Your task to perform on an android device: Clear the cart on target. Add bose soundlink to the cart on target, then select checkout. Image 0: 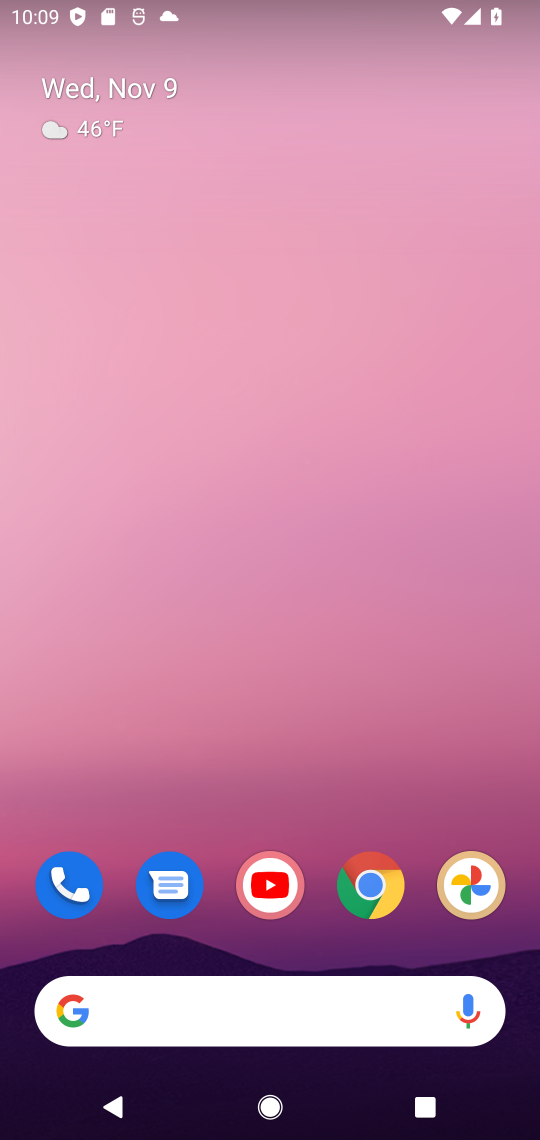
Step 0: click (383, 904)
Your task to perform on an android device: Clear the cart on target. Add bose soundlink to the cart on target, then select checkout. Image 1: 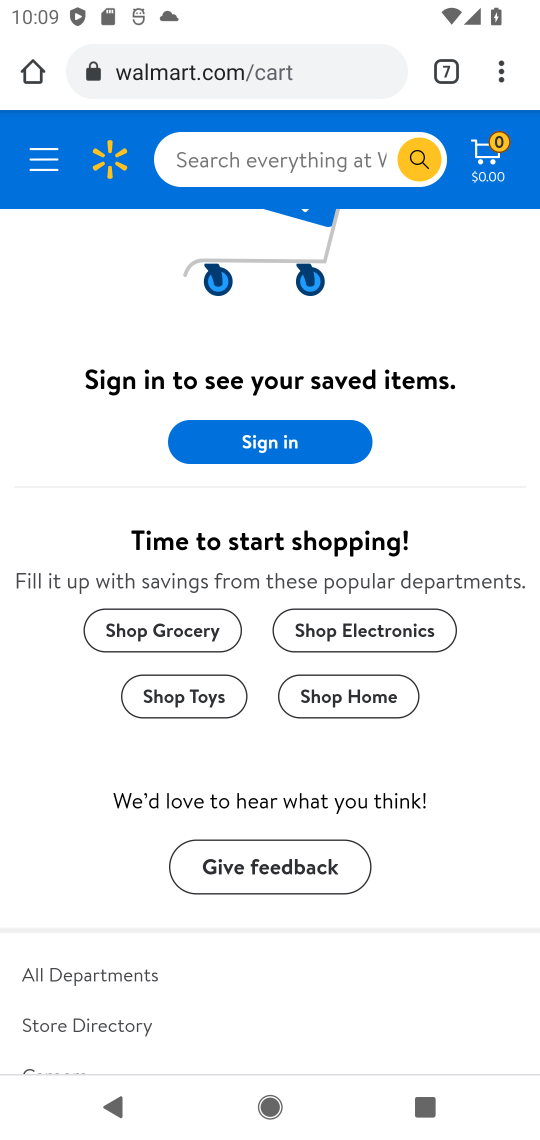
Step 1: click (452, 70)
Your task to perform on an android device: Clear the cart on target. Add bose soundlink to the cart on target, then select checkout. Image 2: 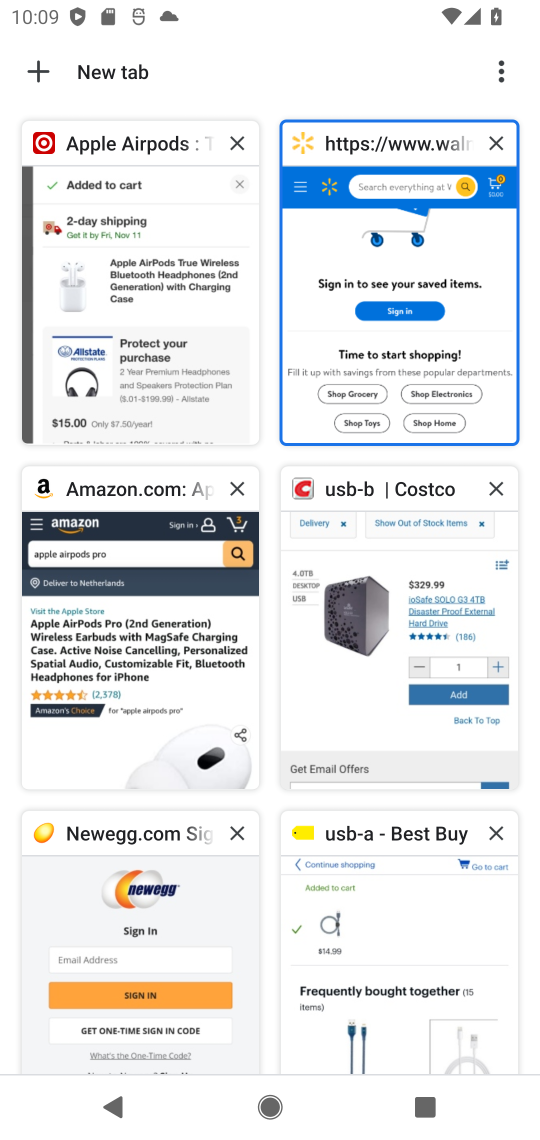
Step 2: click (138, 331)
Your task to perform on an android device: Clear the cart on target. Add bose soundlink to the cart on target, then select checkout. Image 3: 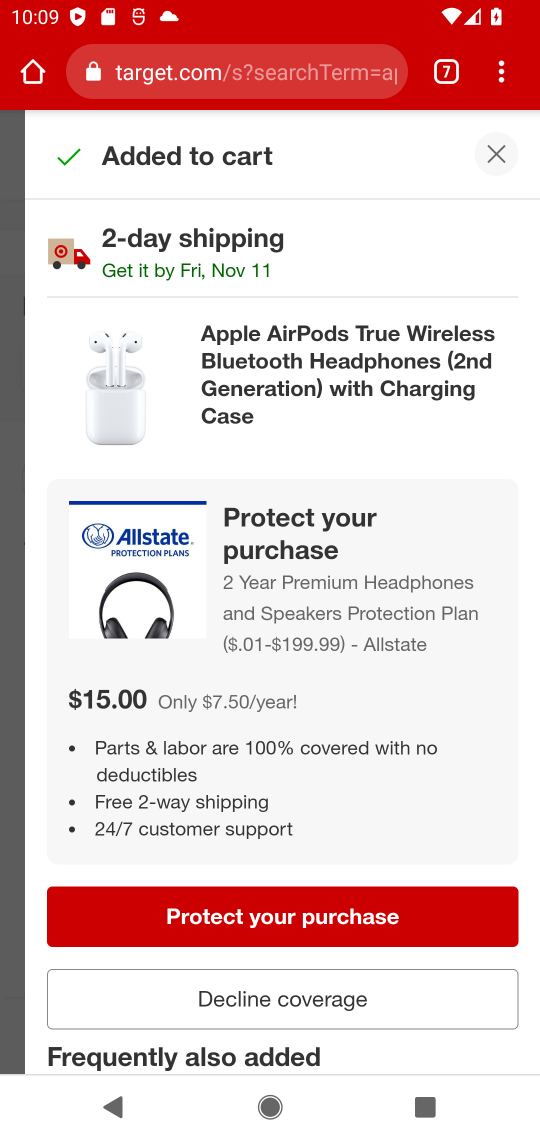
Step 3: click (491, 160)
Your task to perform on an android device: Clear the cart on target. Add bose soundlink to the cart on target, then select checkout. Image 4: 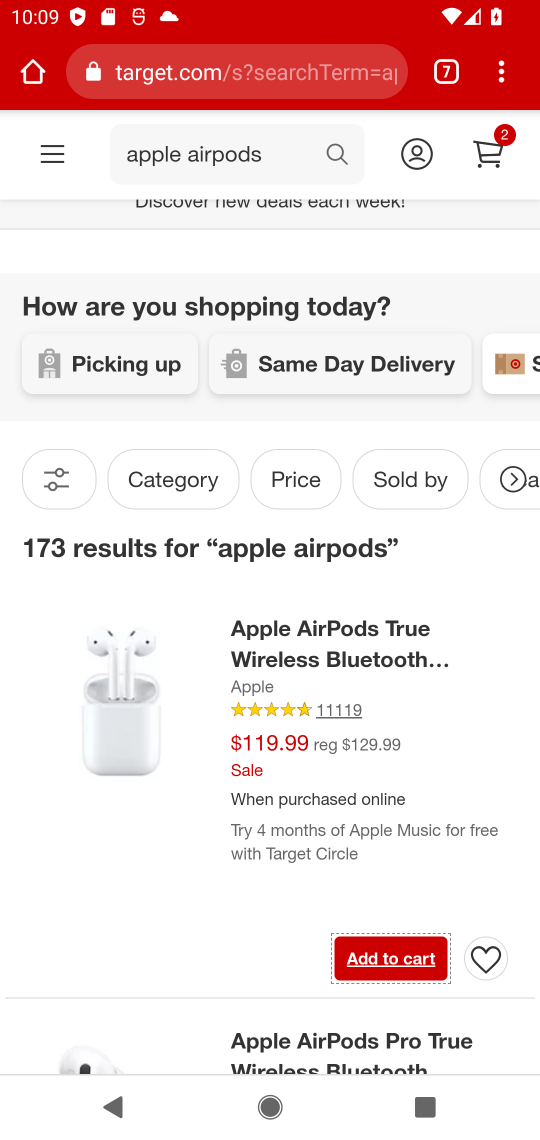
Step 4: click (242, 148)
Your task to perform on an android device: Clear the cart on target. Add bose soundlink to the cart on target, then select checkout. Image 5: 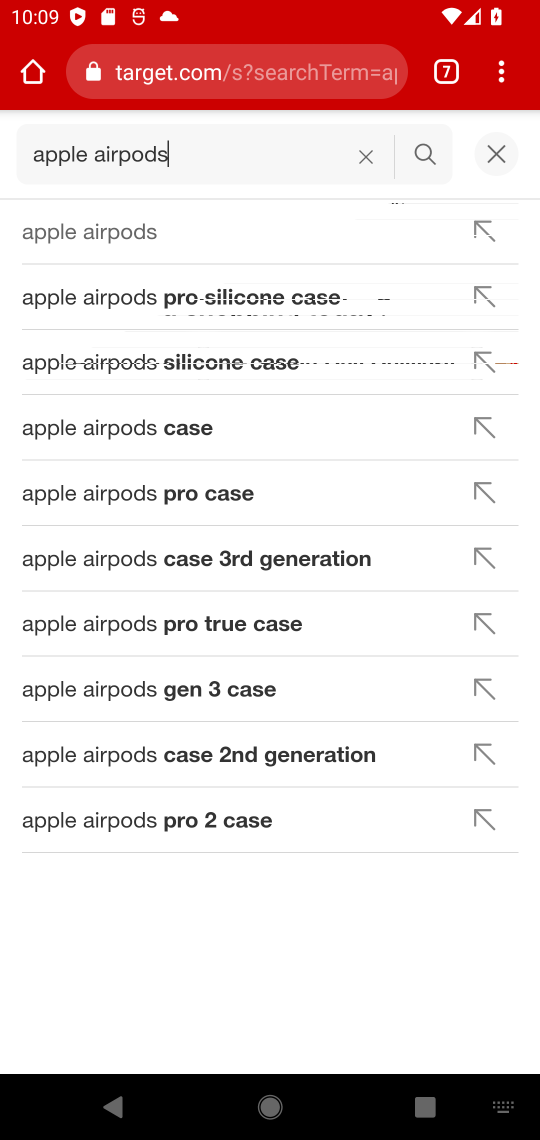
Step 5: click (365, 156)
Your task to perform on an android device: Clear the cart on target. Add bose soundlink to the cart on target, then select checkout. Image 6: 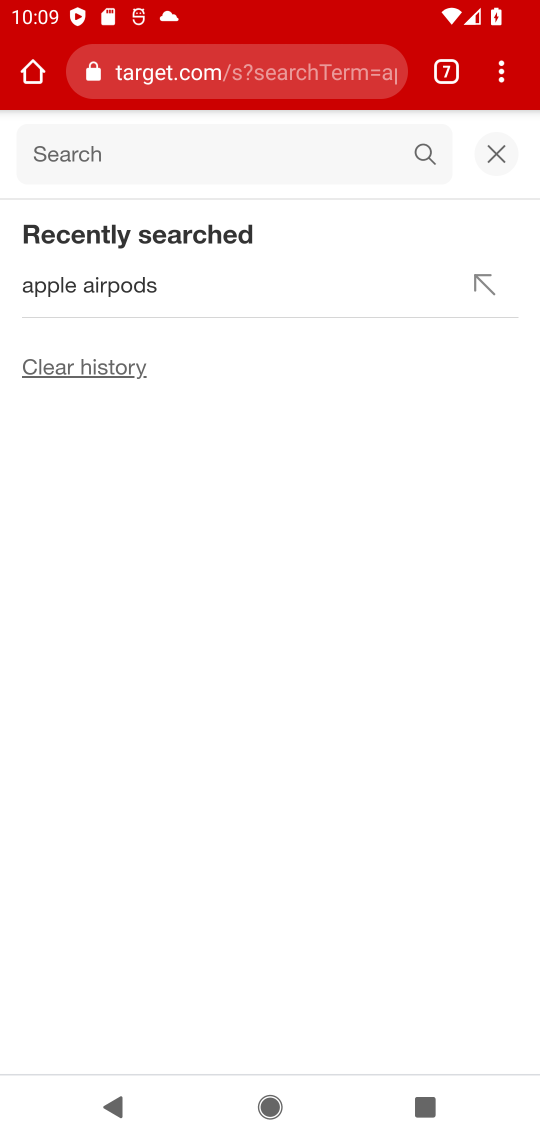
Step 6: click (274, 161)
Your task to perform on an android device: Clear the cart on target. Add bose soundlink to the cart on target, then select checkout. Image 7: 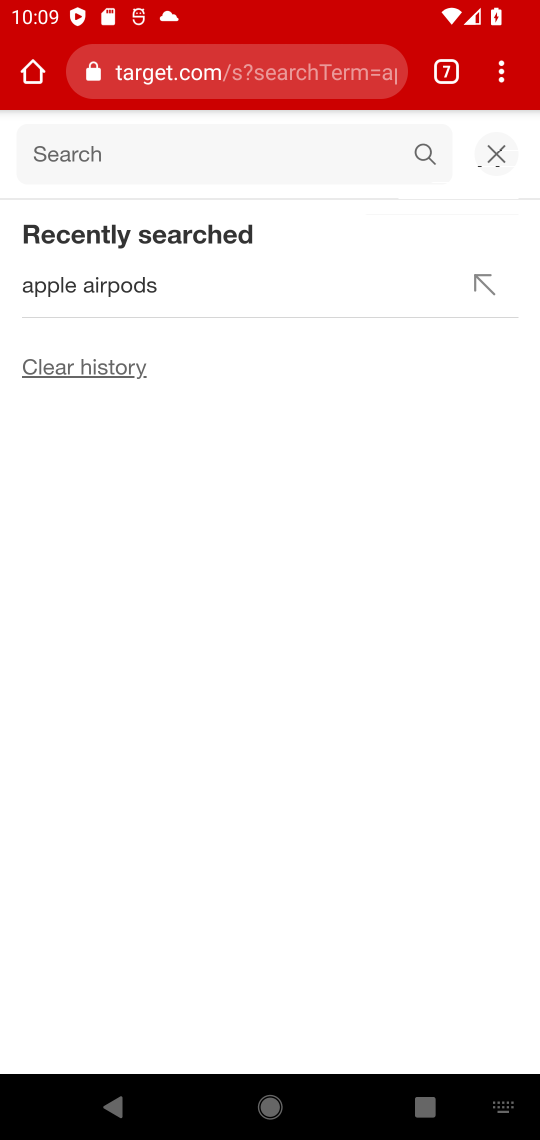
Step 7: type "bose soundlink"
Your task to perform on an android device: Clear the cart on target. Add bose soundlink to the cart on target, then select checkout. Image 8: 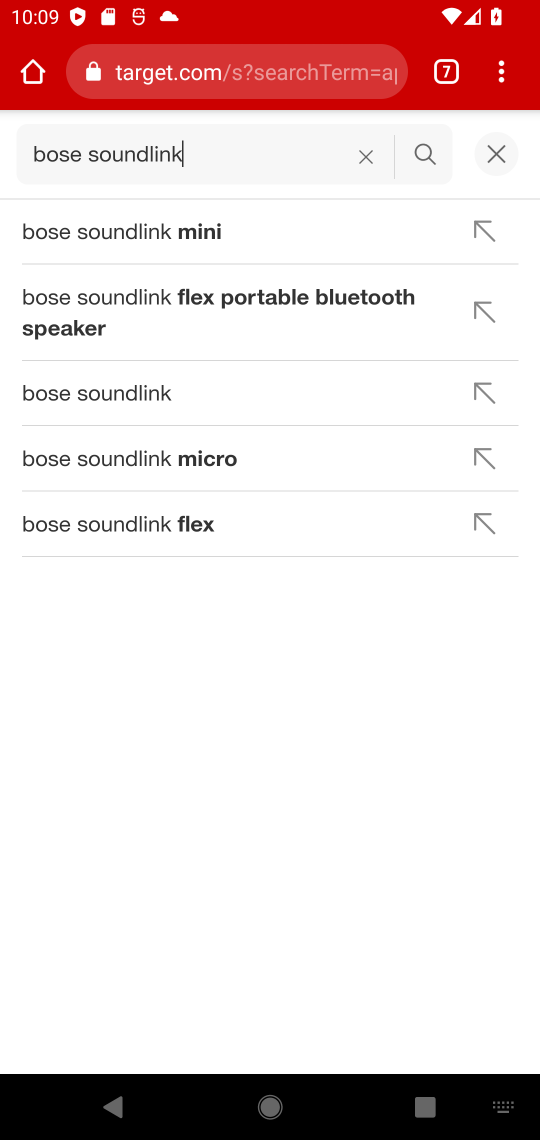
Step 8: click (193, 223)
Your task to perform on an android device: Clear the cart on target. Add bose soundlink to the cart on target, then select checkout. Image 9: 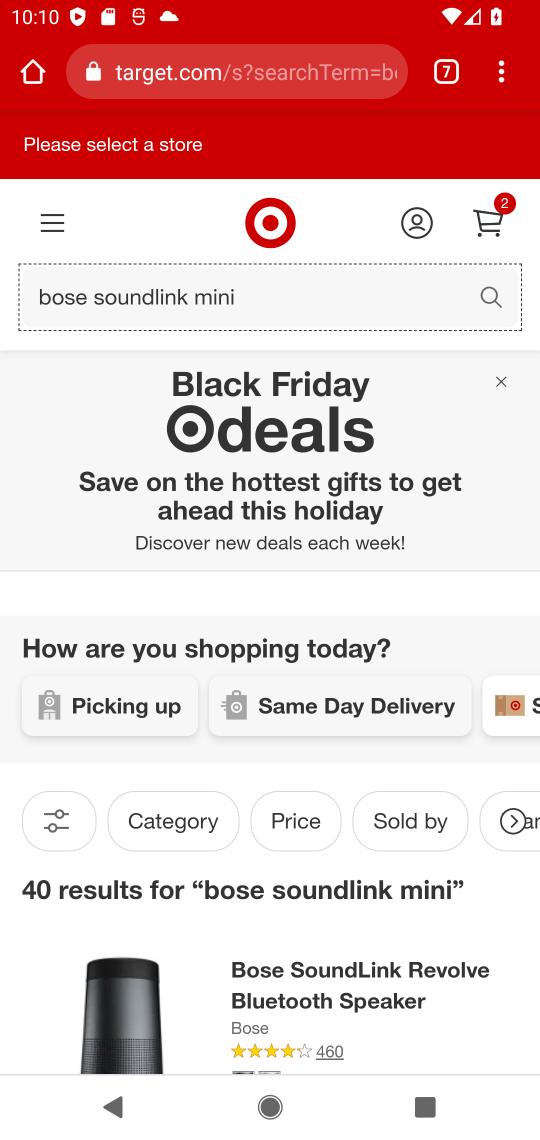
Step 9: drag from (445, 1018) to (474, 463)
Your task to perform on an android device: Clear the cart on target. Add bose soundlink to the cart on target, then select checkout. Image 10: 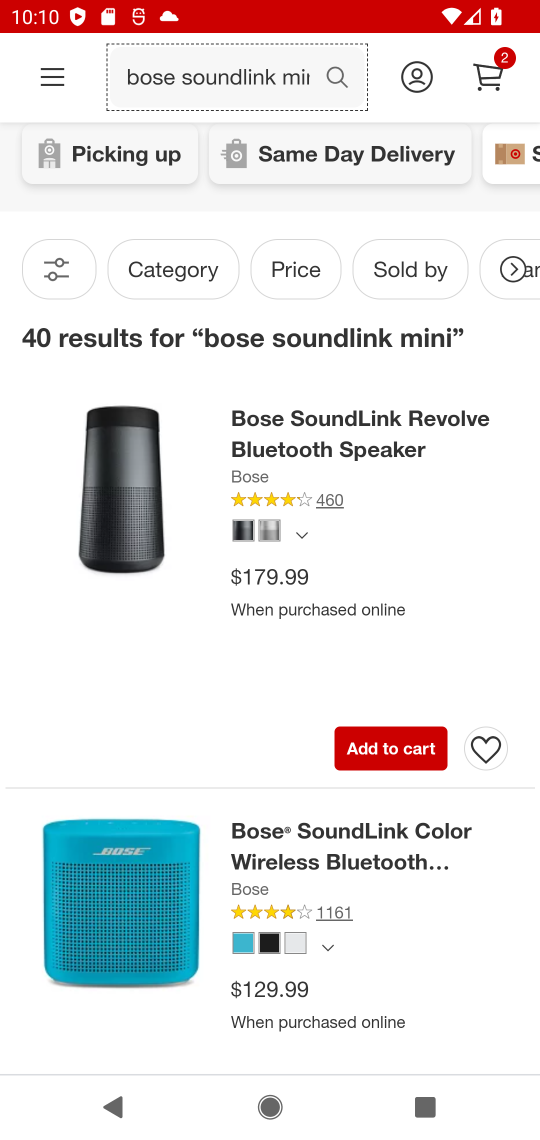
Step 10: click (365, 740)
Your task to perform on an android device: Clear the cart on target. Add bose soundlink to the cart on target, then select checkout. Image 11: 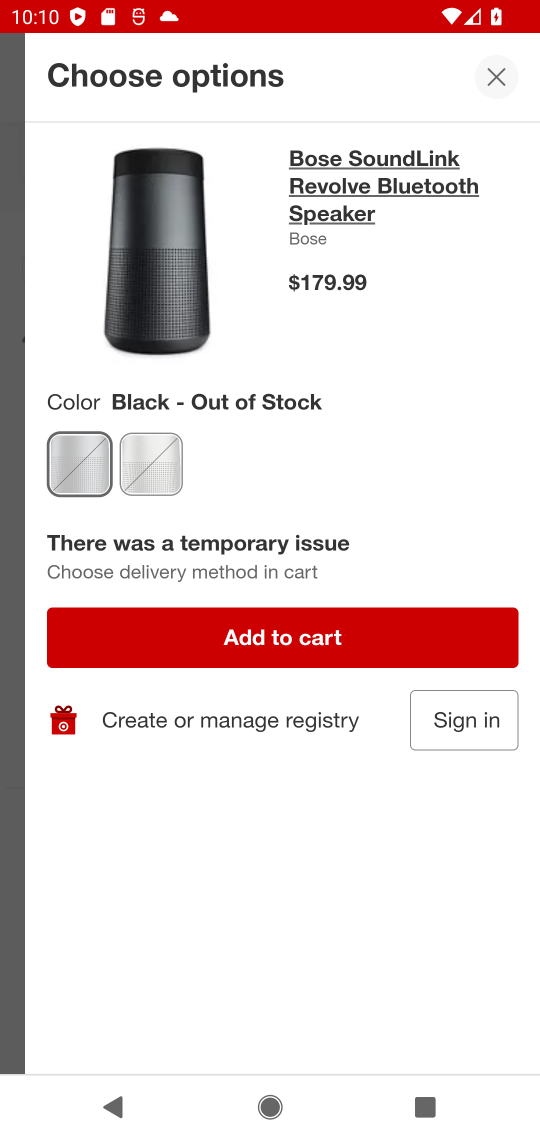
Step 11: task complete